Your task to perform on an android device: turn off translation in the chrome app Image 0: 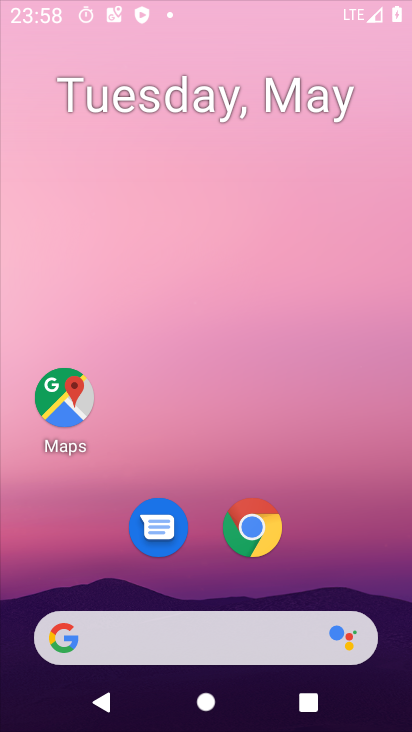
Step 0: click (248, 247)
Your task to perform on an android device: turn off translation in the chrome app Image 1: 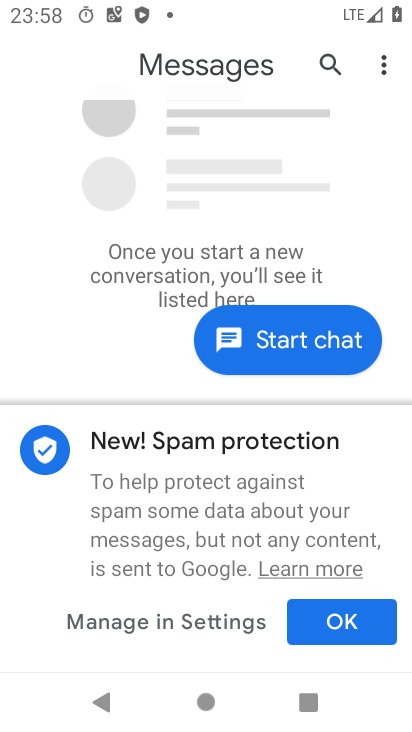
Step 1: drag from (189, 605) to (263, 205)
Your task to perform on an android device: turn off translation in the chrome app Image 2: 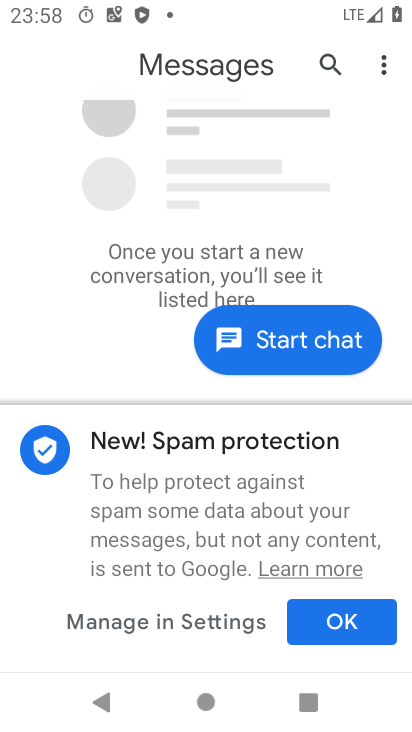
Step 2: drag from (222, 523) to (266, 240)
Your task to perform on an android device: turn off translation in the chrome app Image 3: 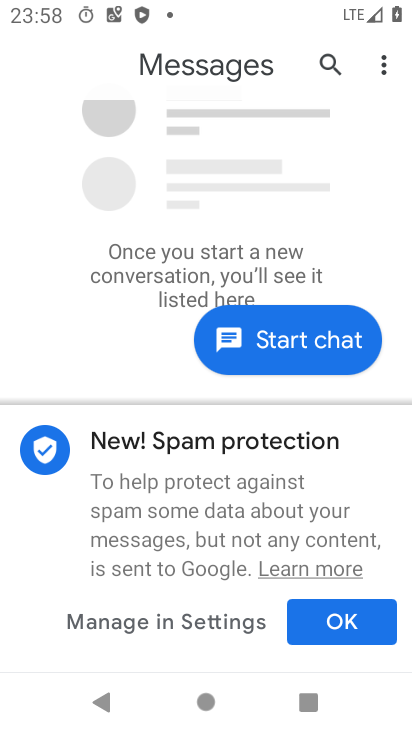
Step 3: drag from (198, 464) to (233, 199)
Your task to perform on an android device: turn off translation in the chrome app Image 4: 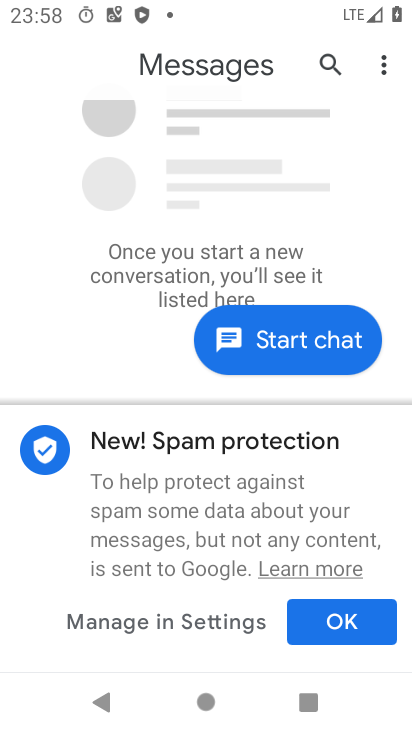
Step 4: drag from (235, 475) to (284, 175)
Your task to perform on an android device: turn off translation in the chrome app Image 5: 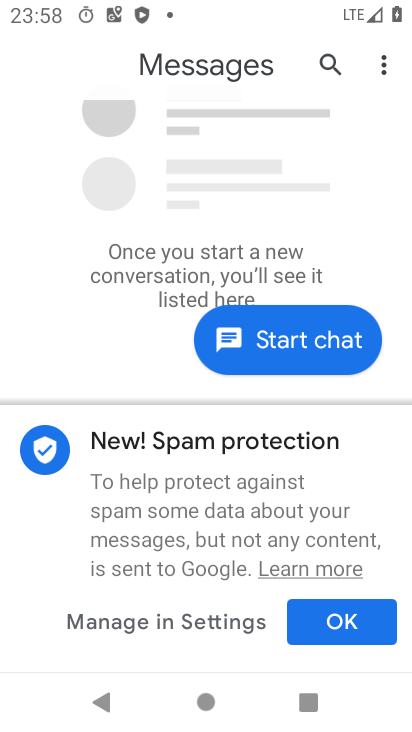
Step 5: click (211, 249)
Your task to perform on an android device: turn off translation in the chrome app Image 6: 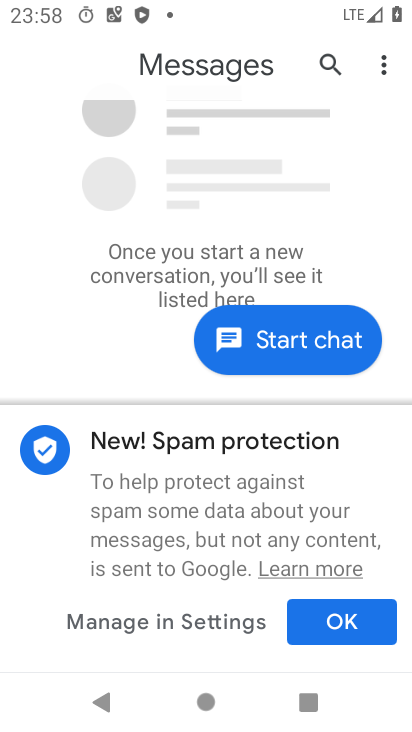
Step 6: drag from (211, 208) to (320, 694)
Your task to perform on an android device: turn off translation in the chrome app Image 7: 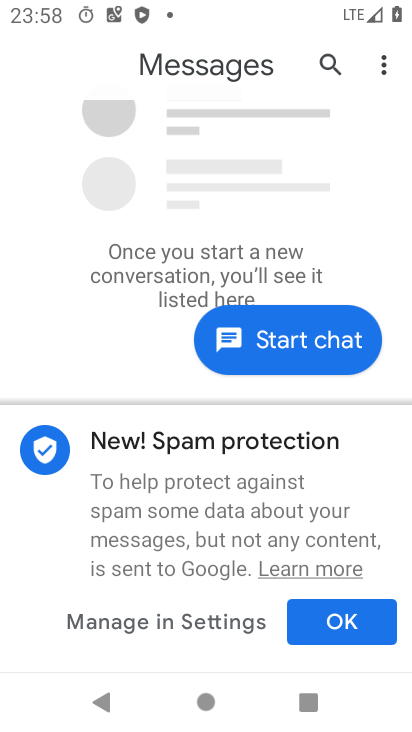
Step 7: drag from (209, 523) to (243, 309)
Your task to perform on an android device: turn off translation in the chrome app Image 8: 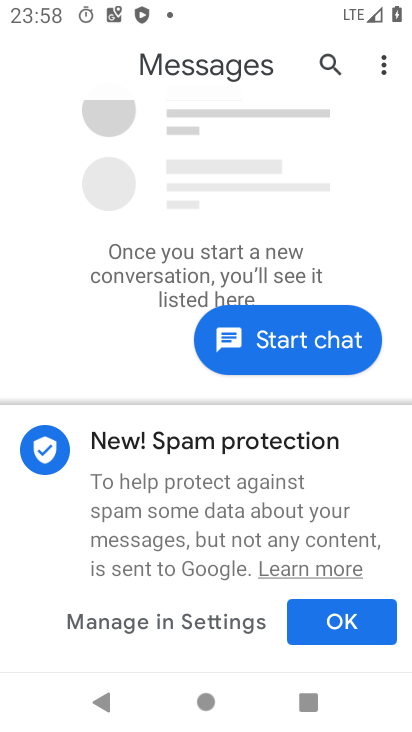
Step 8: drag from (257, 453) to (270, 411)
Your task to perform on an android device: turn off translation in the chrome app Image 9: 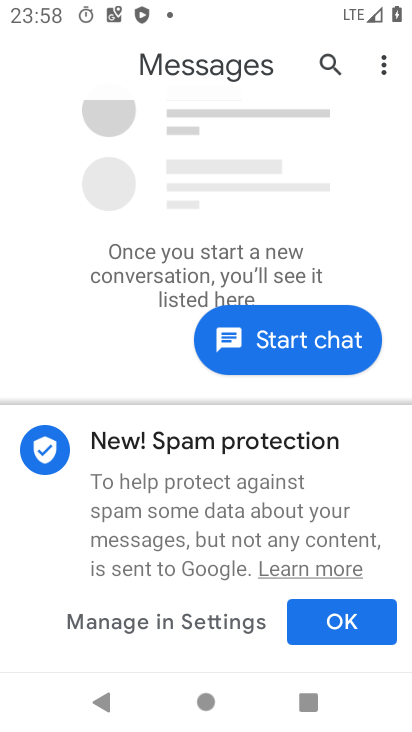
Step 9: drag from (211, 455) to (251, 350)
Your task to perform on an android device: turn off translation in the chrome app Image 10: 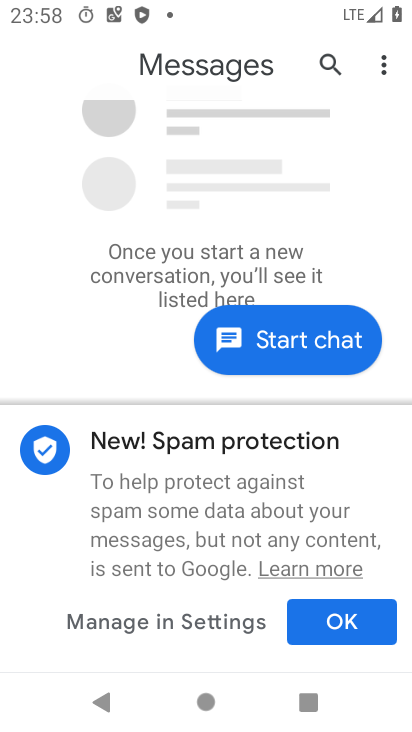
Step 10: press home button
Your task to perform on an android device: turn off translation in the chrome app Image 11: 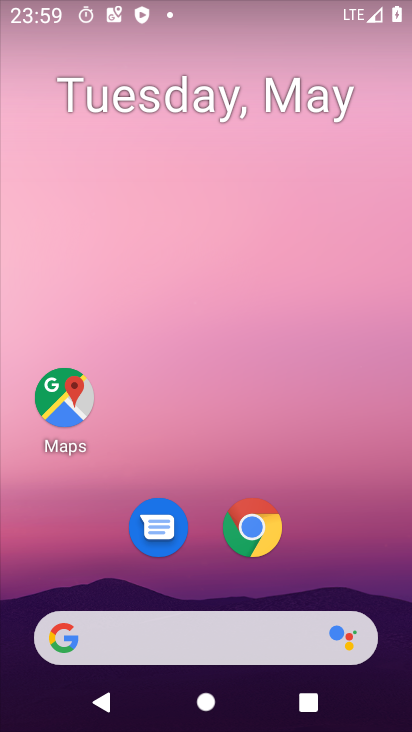
Step 11: drag from (198, 591) to (248, 200)
Your task to perform on an android device: turn off translation in the chrome app Image 12: 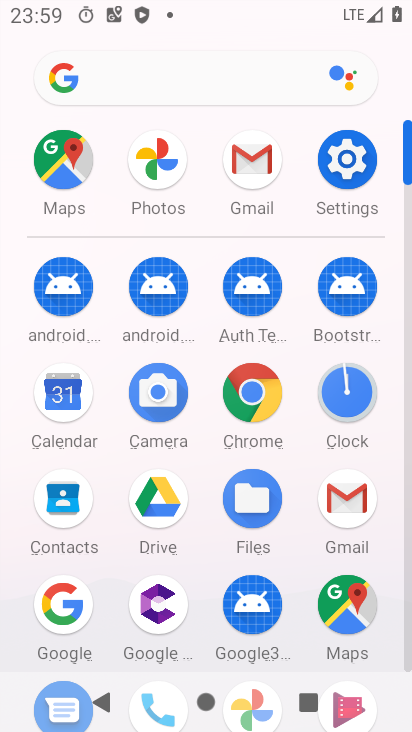
Step 12: click (247, 385)
Your task to perform on an android device: turn off translation in the chrome app Image 13: 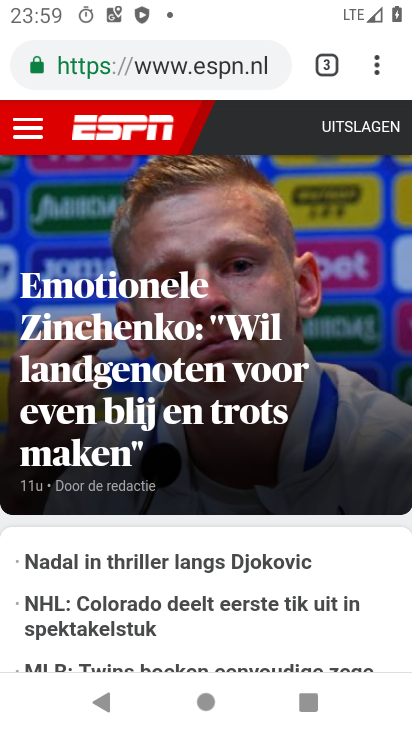
Step 13: drag from (376, 63) to (192, 586)
Your task to perform on an android device: turn off translation in the chrome app Image 14: 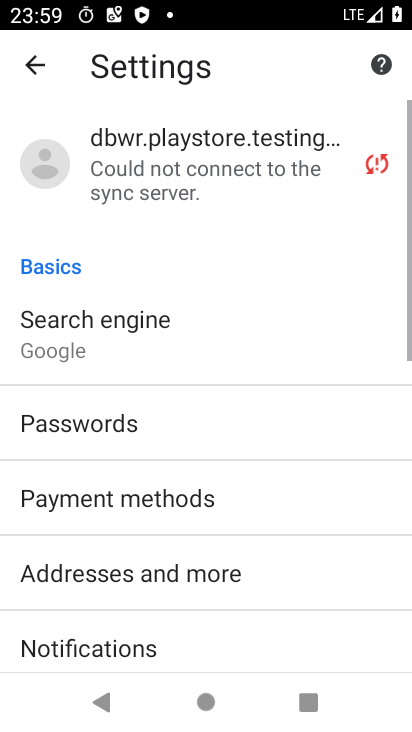
Step 14: drag from (260, 572) to (289, 225)
Your task to perform on an android device: turn off translation in the chrome app Image 15: 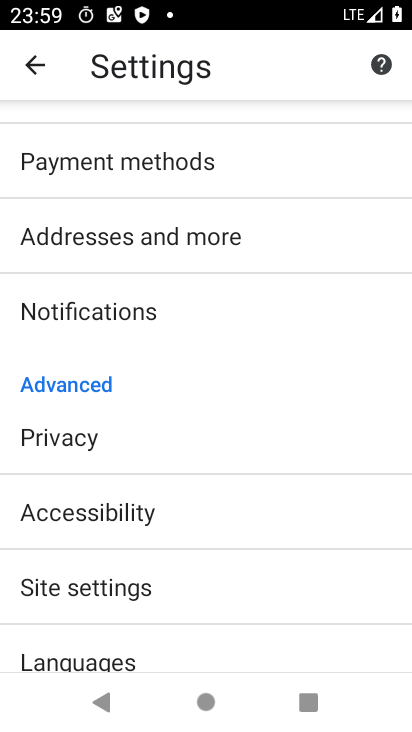
Step 15: drag from (202, 601) to (329, 268)
Your task to perform on an android device: turn off translation in the chrome app Image 16: 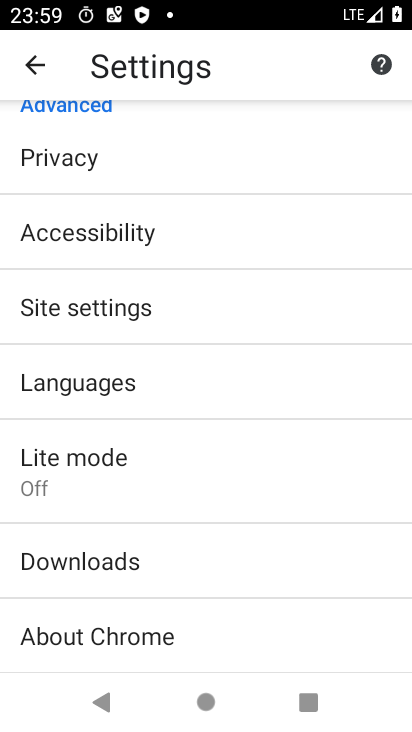
Step 16: click (187, 372)
Your task to perform on an android device: turn off translation in the chrome app Image 17: 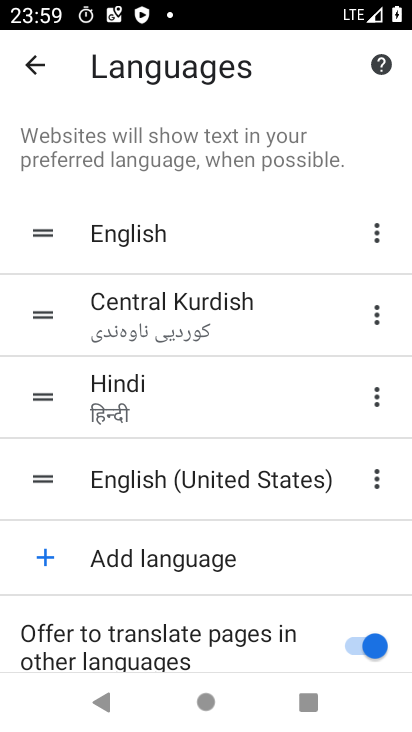
Step 17: drag from (177, 618) to (14, 556)
Your task to perform on an android device: turn off translation in the chrome app Image 18: 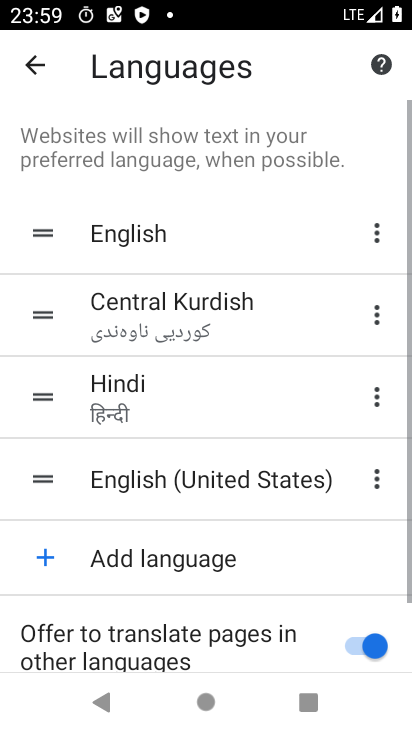
Step 18: drag from (198, 617) to (211, 307)
Your task to perform on an android device: turn off translation in the chrome app Image 19: 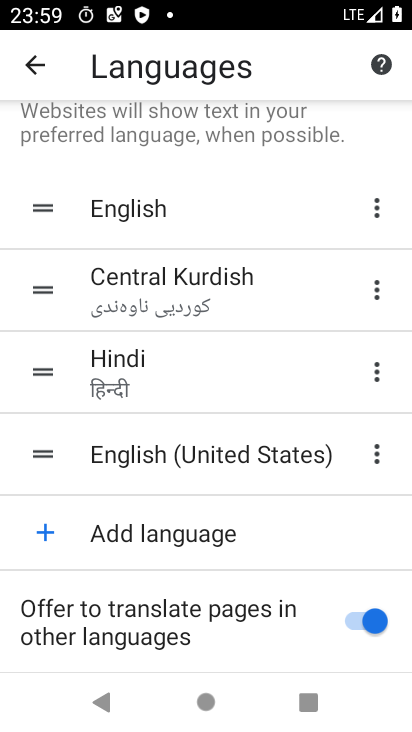
Step 19: drag from (186, 632) to (211, 376)
Your task to perform on an android device: turn off translation in the chrome app Image 20: 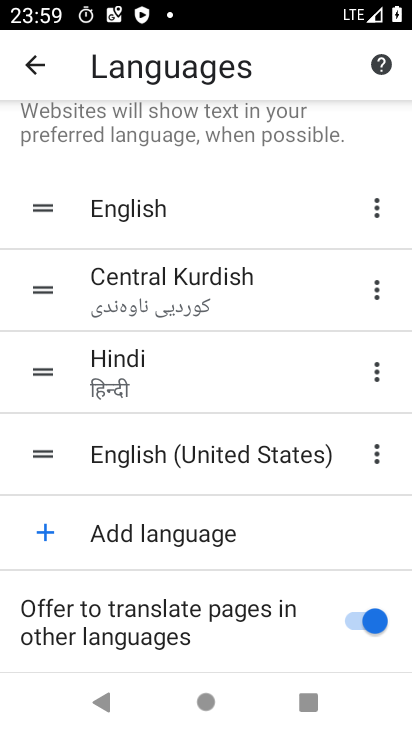
Step 20: click (360, 610)
Your task to perform on an android device: turn off translation in the chrome app Image 21: 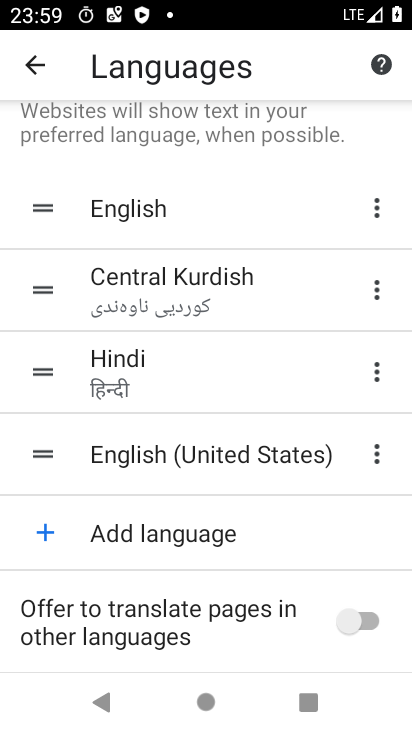
Step 21: task complete